Your task to perform on an android device: turn on javascript in the chrome app Image 0: 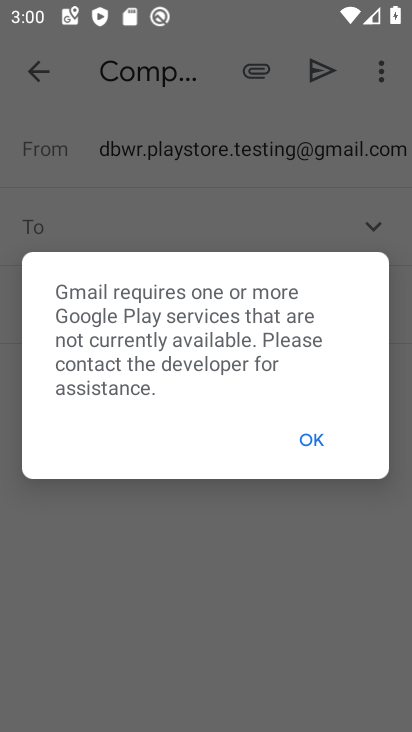
Step 0: press home button
Your task to perform on an android device: turn on javascript in the chrome app Image 1: 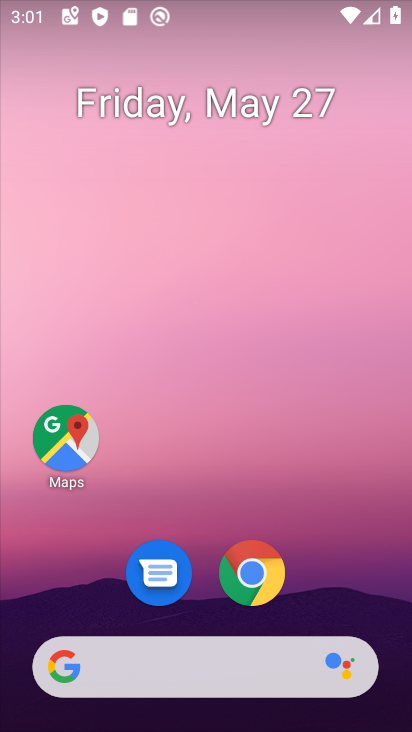
Step 1: click (262, 590)
Your task to perform on an android device: turn on javascript in the chrome app Image 2: 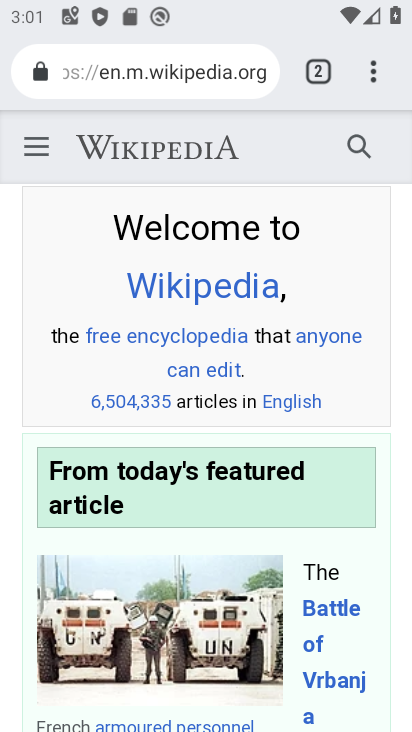
Step 2: click (376, 69)
Your task to perform on an android device: turn on javascript in the chrome app Image 3: 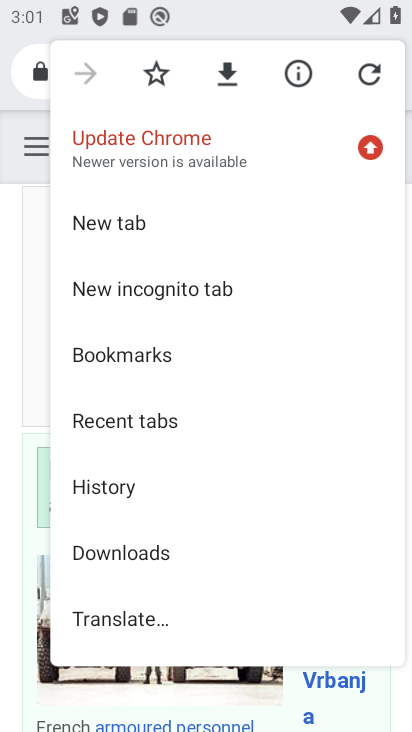
Step 3: drag from (260, 541) to (226, 165)
Your task to perform on an android device: turn on javascript in the chrome app Image 4: 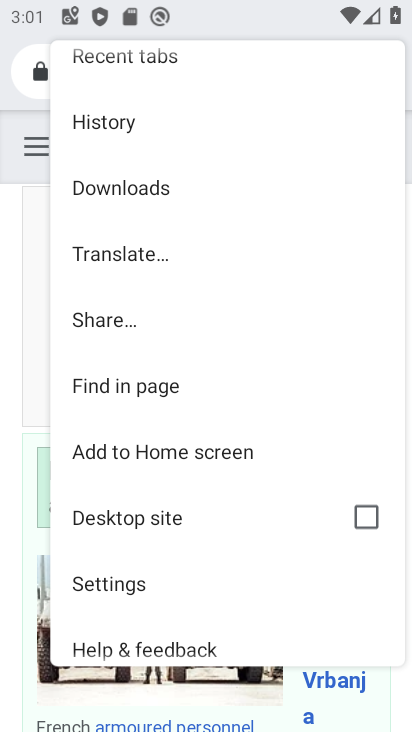
Step 4: click (149, 585)
Your task to perform on an android device: turn on javascript in the chrome app Image 5: 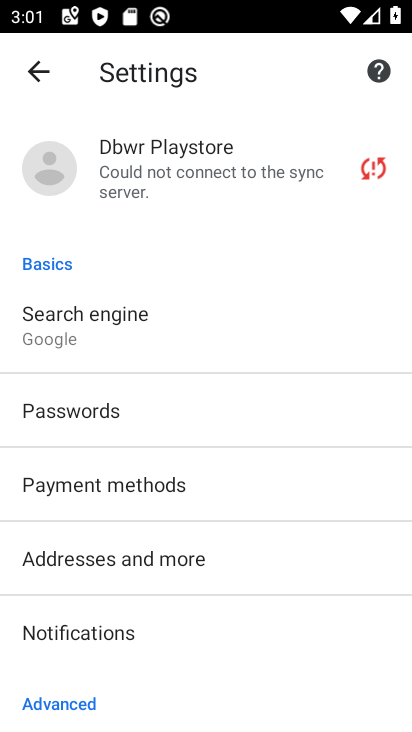
Step 5: drag from (259, 586) to (256, 181)
Your task to perform on an android device: turn on javascript in the chrome app Image 6: 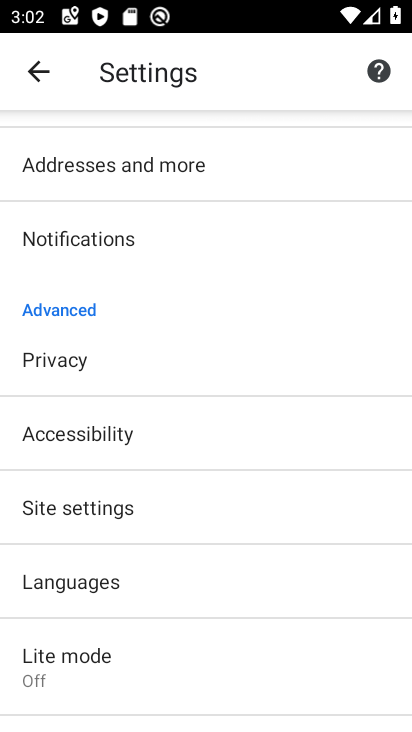
Step 6: click (179, 511)
Your task to perform on an android device: turn on javascript in the chrome app Image 7: 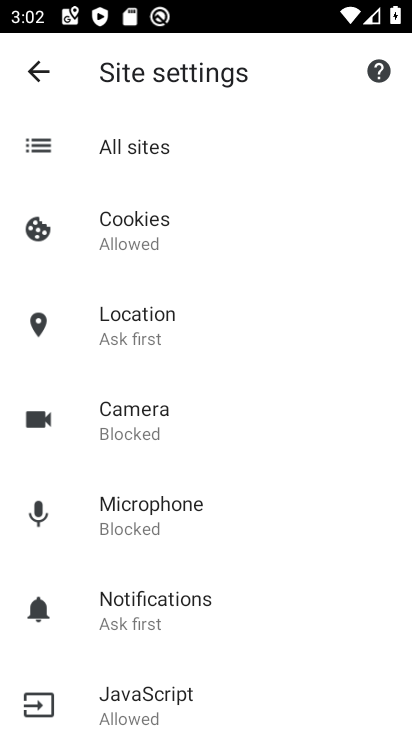
Step 7: drag from (241, 554) to (261, 292)
Your task to perform on an android device: turn on javascript in the chrome app Image 8: 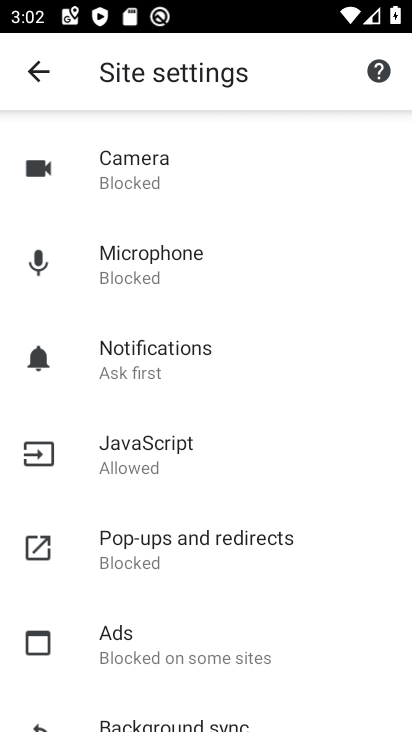
Step 8: click (214, 450)
Your task to perform on an android device: turn on javascript in the chrome app Image 9: 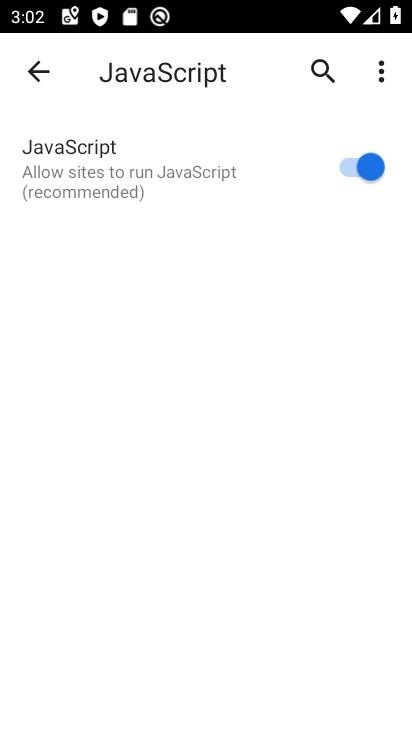
Step 9: task complete